Your task to perform on an android device: Open the calendar app, open the side menu, and click the "Day" option Image 0: 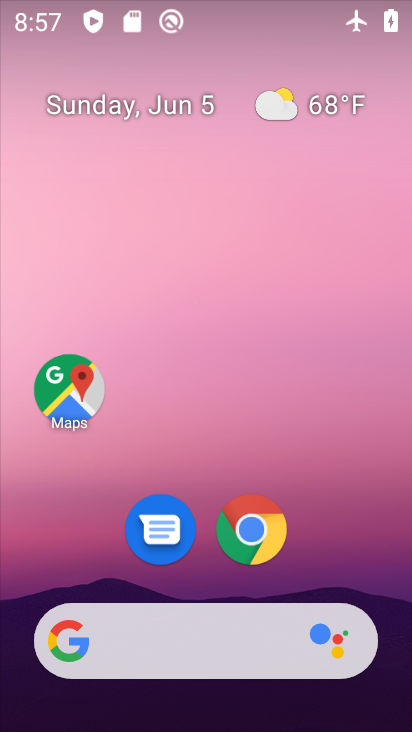
Step 0: click (224, 362)
Your task to perform on an android device: Open the calendar app, open the side menu, and click the "Day" option Image 1: 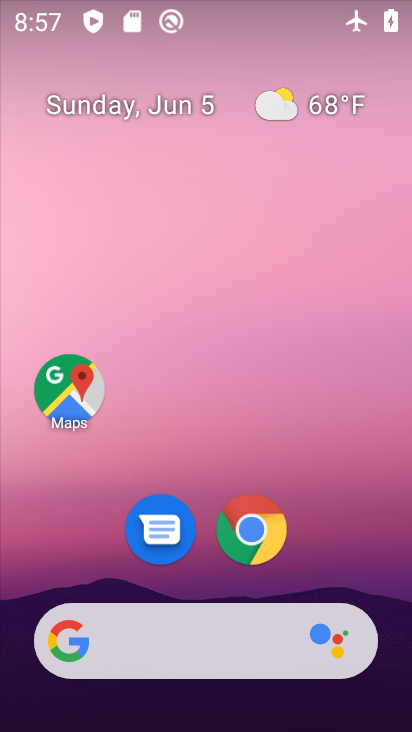
Step 1: drag from (239, 444) to (295, 0)
Your task to perform on an android device: Open the calendar app, open the side menu, and click the "Day" option Image 2: 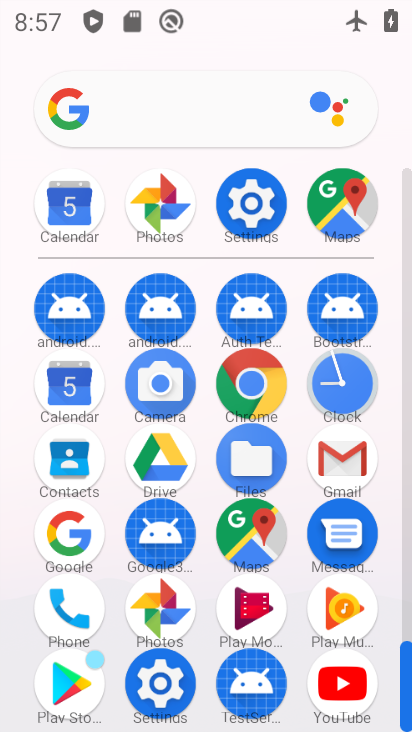
Step 2: click (61, 376)
Your task to perform on an android device: Open the calendar app, open the side menu, and click the "Day" option Image 3: 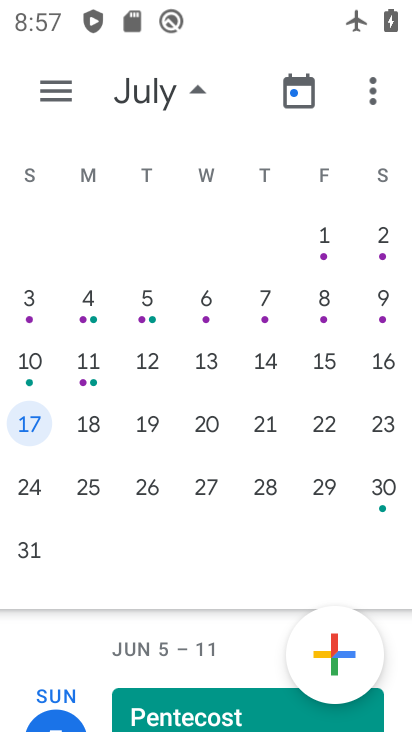
Step 3: click (63, 88)
Your task to perform on an android device: Open the calendar app, open the side menu, and click the "Day" option Image 4: 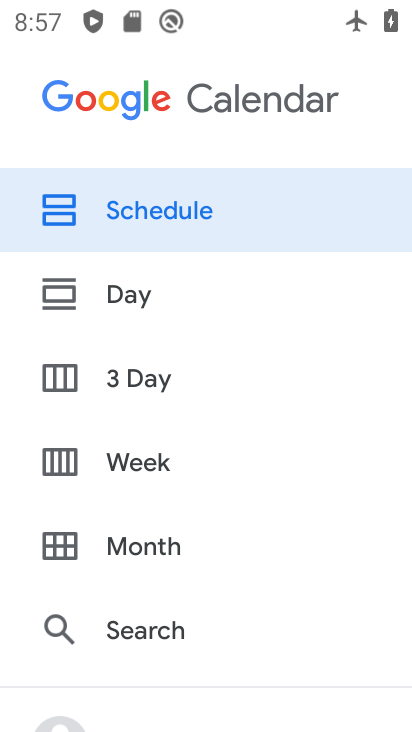
Step 4: click (110, 289)
Your task to perform on an android device: Open the calendar app, open the side menu, and click the "Day" option Image 5: 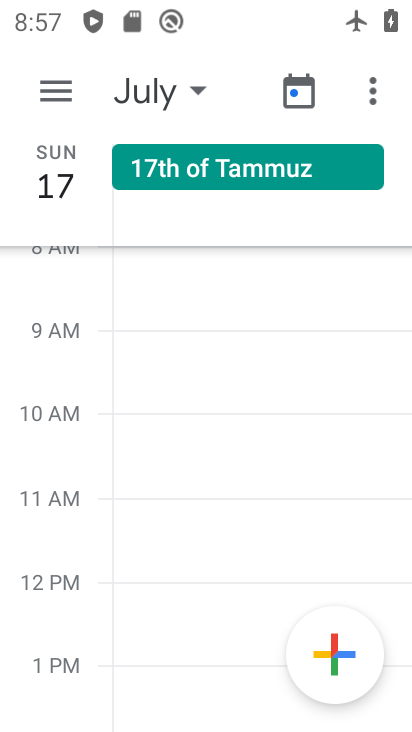
Step 5: task complete